Your task to perform on an android device: Play the last video I watched on Youtube Image 0: 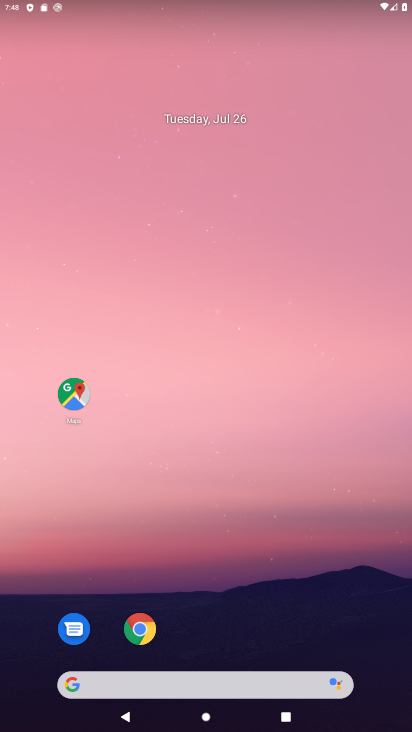
Step 0: press home button
Your task to perform on an android device: Play the last video I watched on Youtube Image 1: 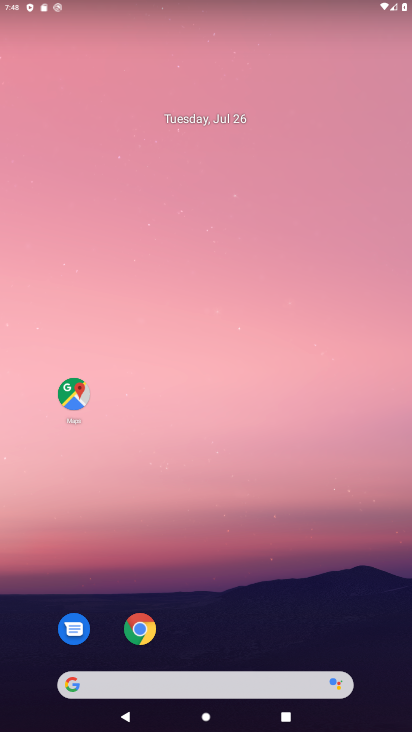
Step 1: drag from (207, 649) to (299, 42)
Your task to perform on an android device: Play the last video I watched on Youtube Image 2: 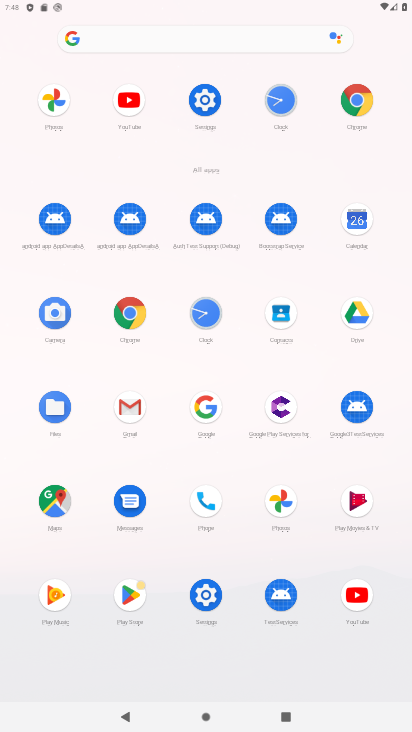
Step 2: click (356, 592)
Your task to perform on an android device: Play the last video I watched on Youtube Image 3: 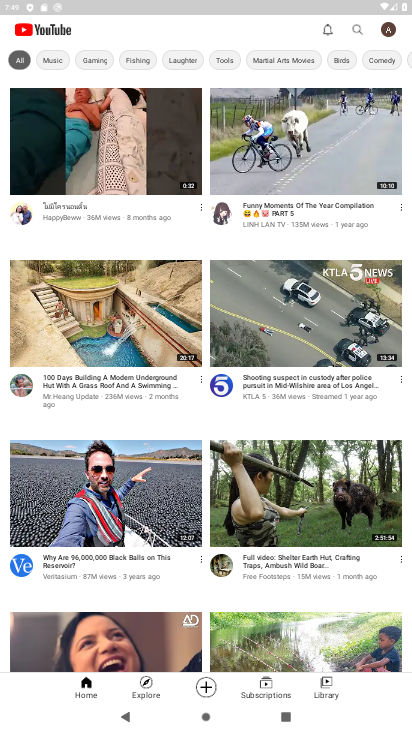
Step 3: click (321, 685)
Your task to perform on an android device: Play the last video I watched on Youtube Image 4: 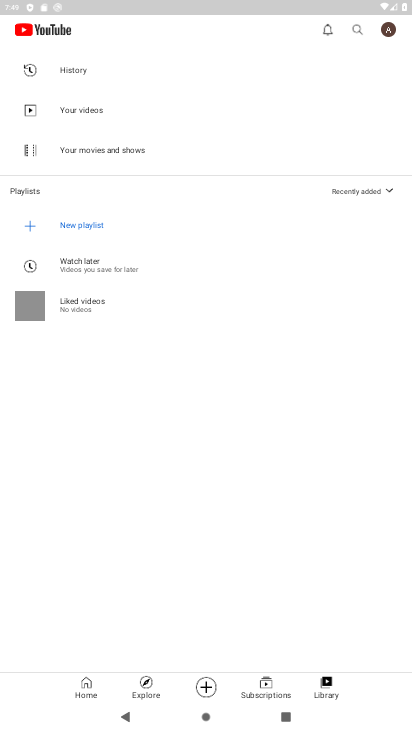
Step 4: click (72, 70)
Your task to perform on an android device: Play the last video I watched on Youtube Image 5: 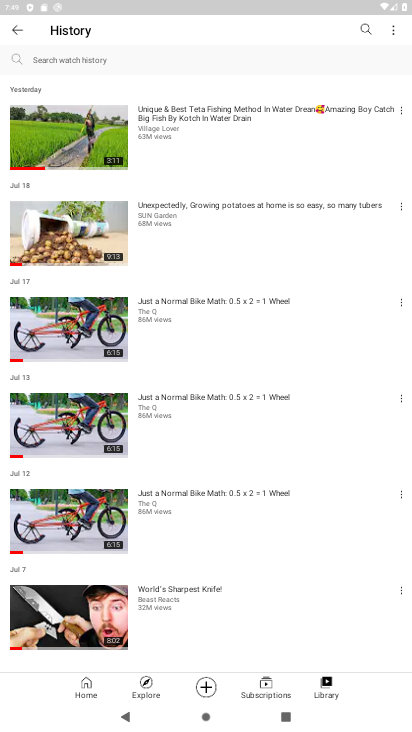
Step 5: click (102, 141)
Your task to perform on an android device: Play the last video I watched on Youtube Image 6: 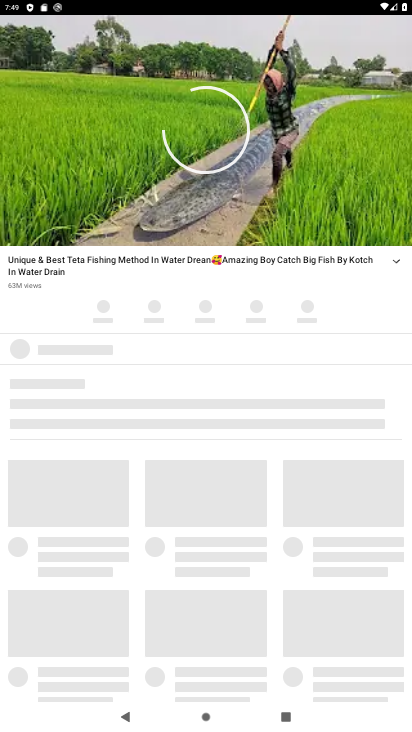
Step 6: task complete